Your task to perform on an android device: open a bookmark in the chrome app Image 0: 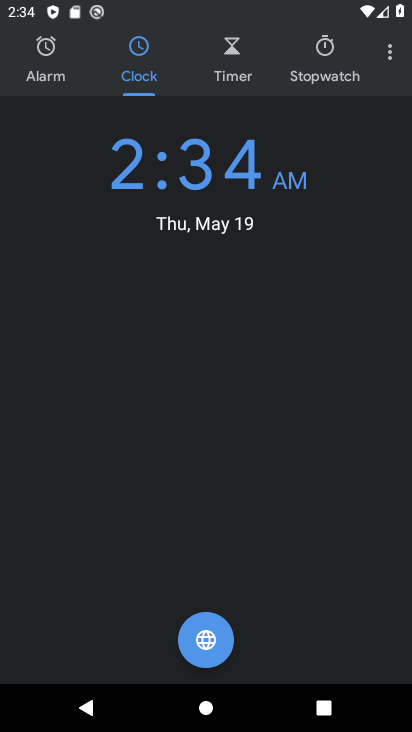
Step 0: press home button
Your task to perform on an android device: open a bookmark in the chrome app Image 1: 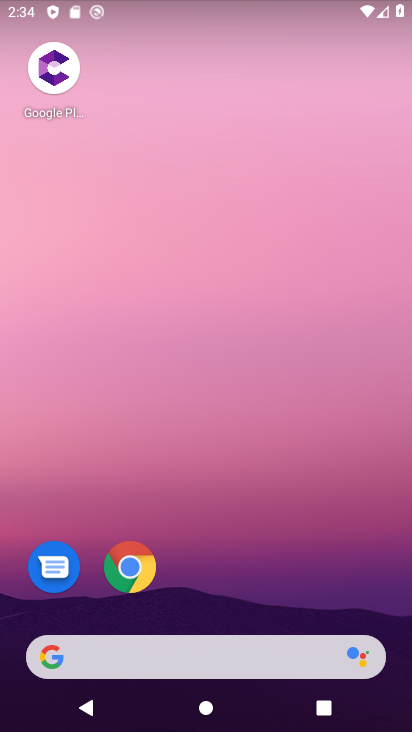
Step 1: click (108, 567)
Your task to perform on an android device: open a bookmark in the chrome app Image 2: 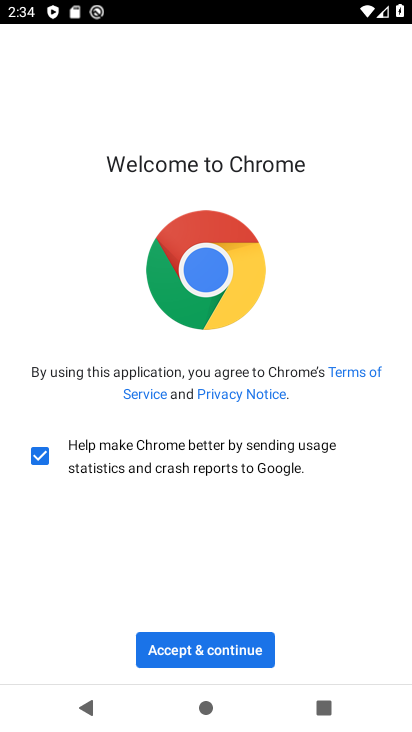
Step 2: click (251, 637)
Your task to perform on an android device: open a bookmark in the chrome app Image 3: 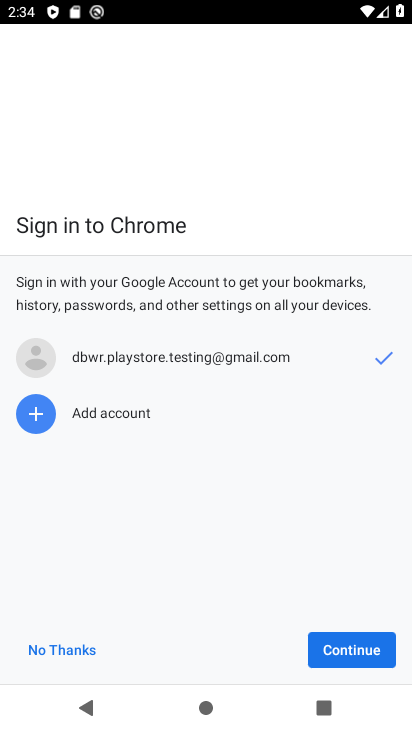
Step 3: click (375, 657)
Your task to perform on an android device: open a bookmark in the chrome app Image 4: 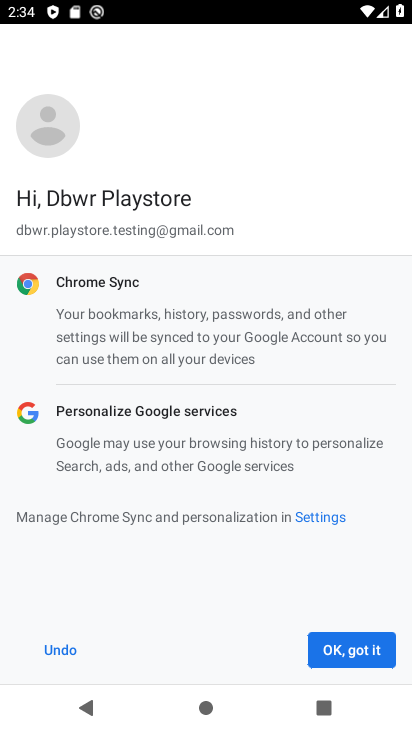
Step 4: click (340, 647)
Your task to perform on an android device: open a bookmark in the chrome app Image 5: 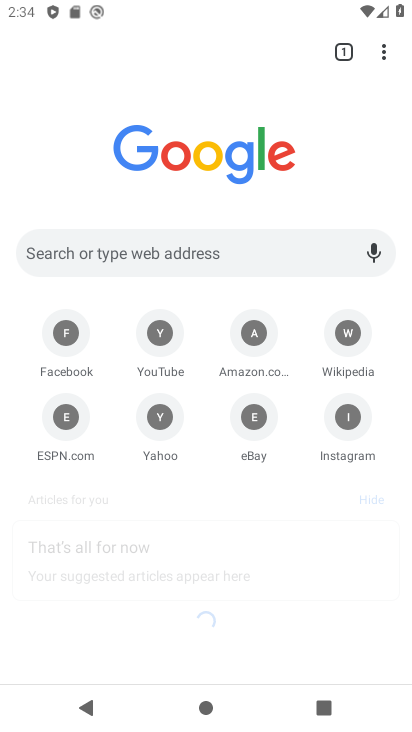
Step 5: click (376, 47)
Your task to perform on an android device: open a bookmark in the chrome app Image 6: 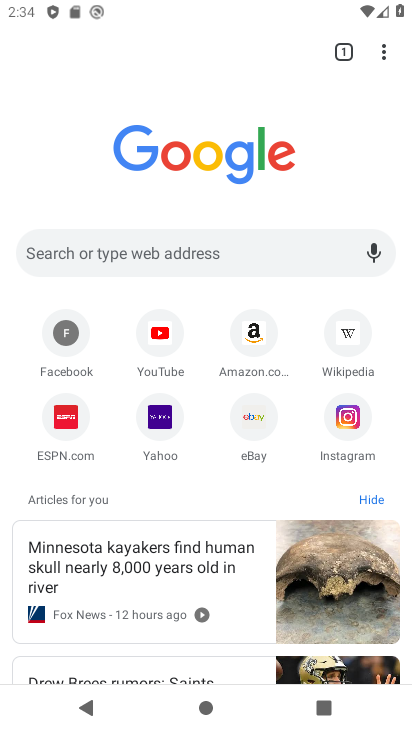
Step 6: click (370, 55)
Your task to perform on an android device: open a bookmark in the chrome app Image 7: 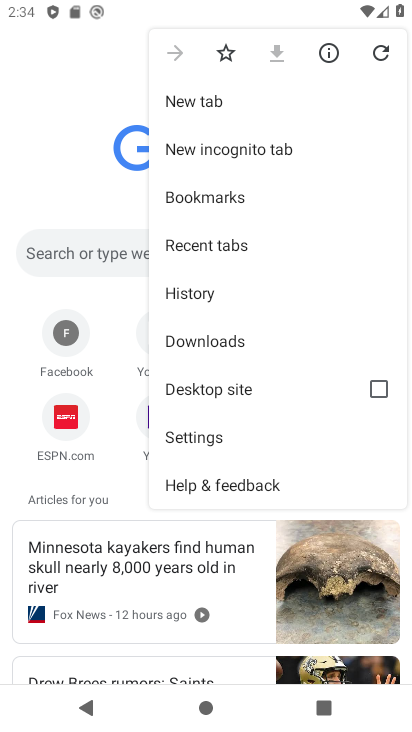
Step 7: click (227, 211)
Your task to perform on an android device: open a bookmark in the chrome app Image 8: 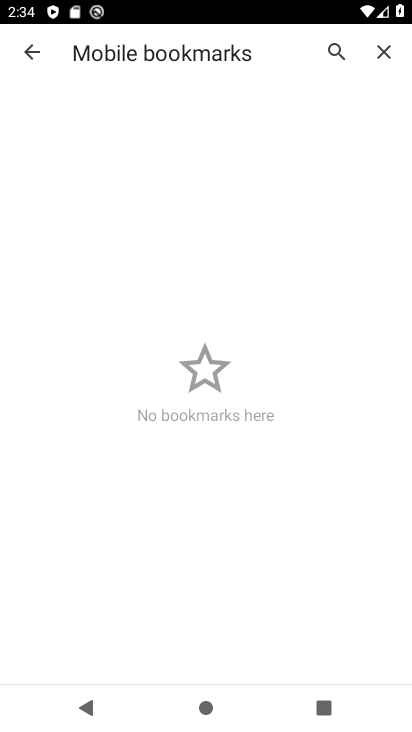
Step 8: task complete